Your task to perform on an android device: set default search engine in the chrome app Image 0: 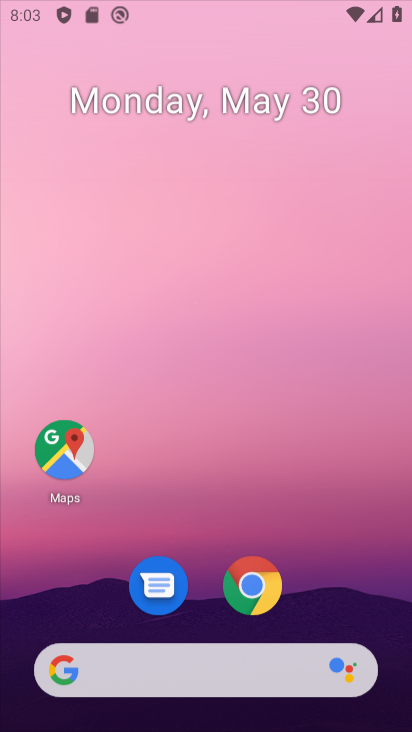
Step 0: click (180, 674)
Your task to perform on an android device: set default search engine in the chrome app Image 1: 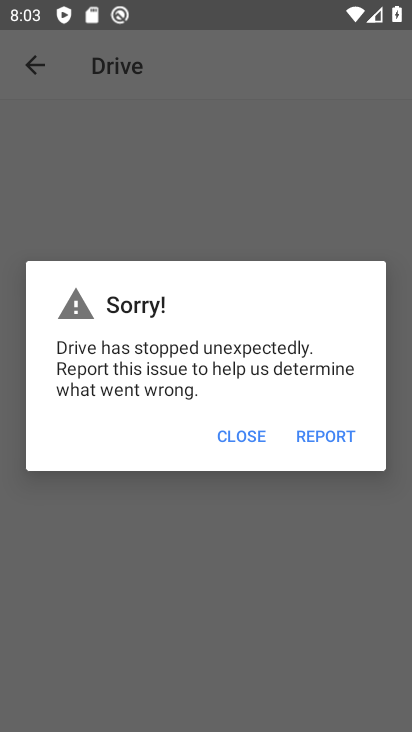
Step 1: press home button
Your task to perform on an android device: set default search engine in the chrome app Image 2: 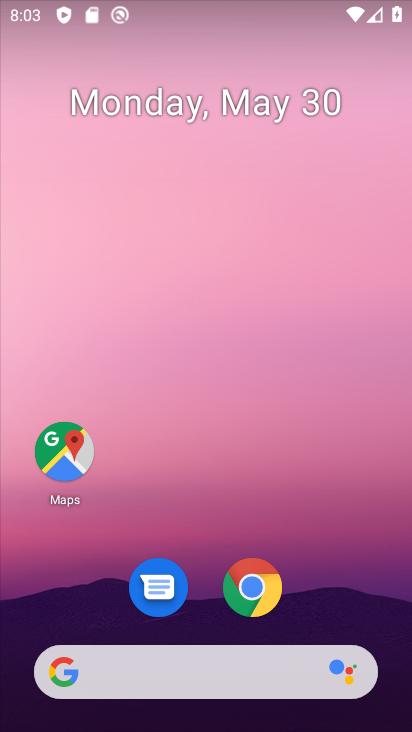
Step 2: click (252, 588)
Your task to perform on an android device: set default search engine in the chrome app Image 3: 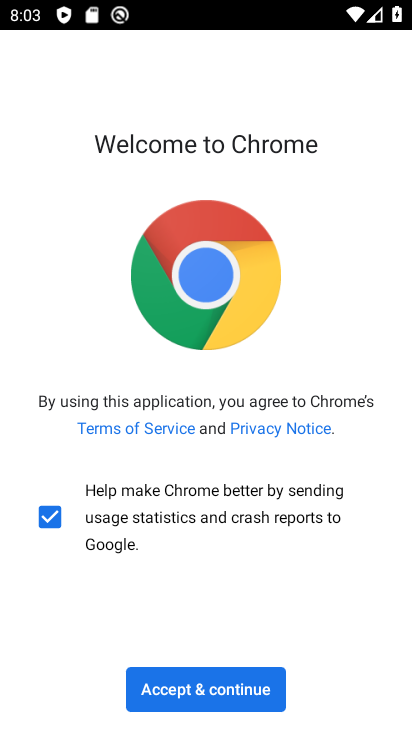
Step 3: click (178, 694)
Your task to perform on an android device: set default search engine in the chrome app Image 4: 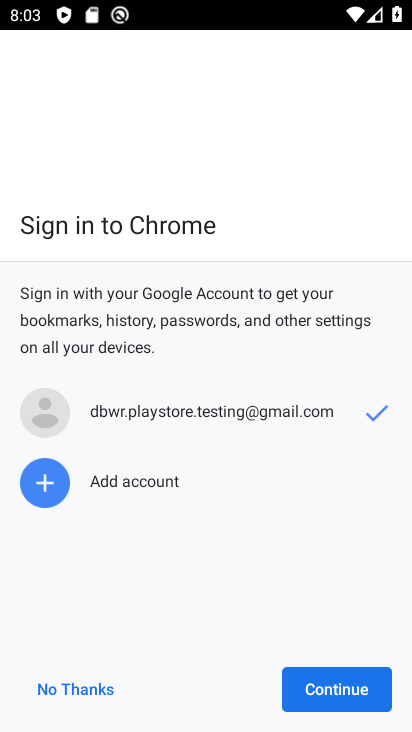
Step 4: click (305, 687)
Your task to perform on an android device: set default search engine in the chrome app Image 5: 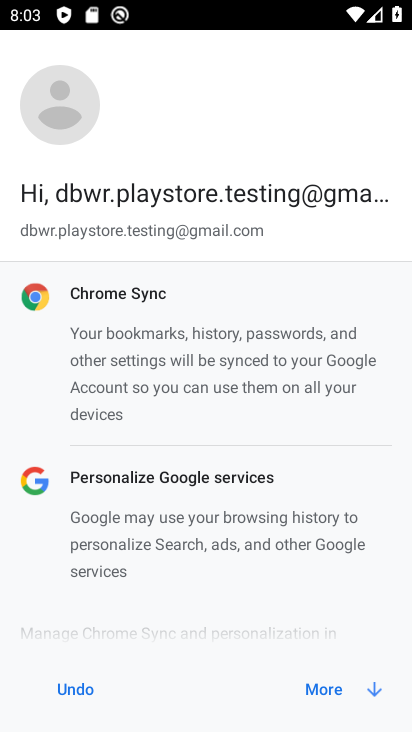
Step 5: click (305, 687)
Your task to perform on an android device: set default search engine in the chrome app Image 6: 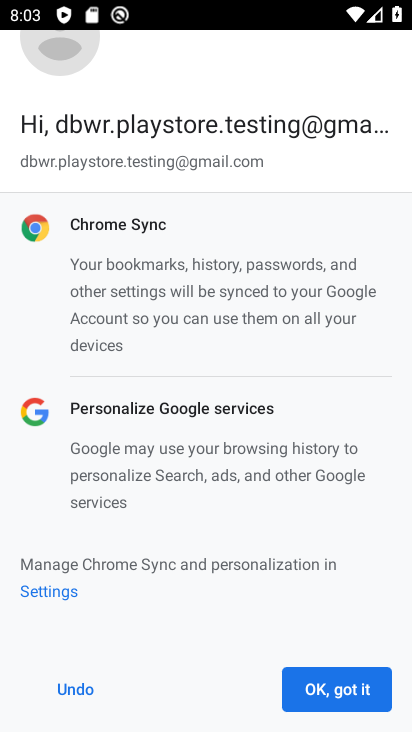
Step 6: click (305, 687)
Your task to perform on an android device: set default search engine in the chrome app Image 7: 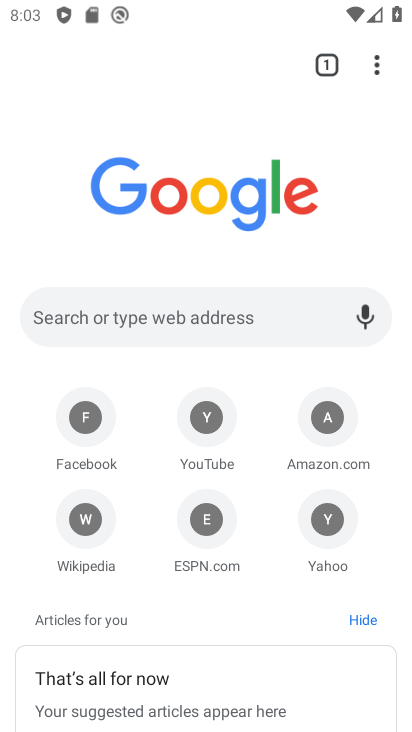
Step 7: click (375, 73)
Your task to perform on an android device: set default search engine in the chrome app Image 8: 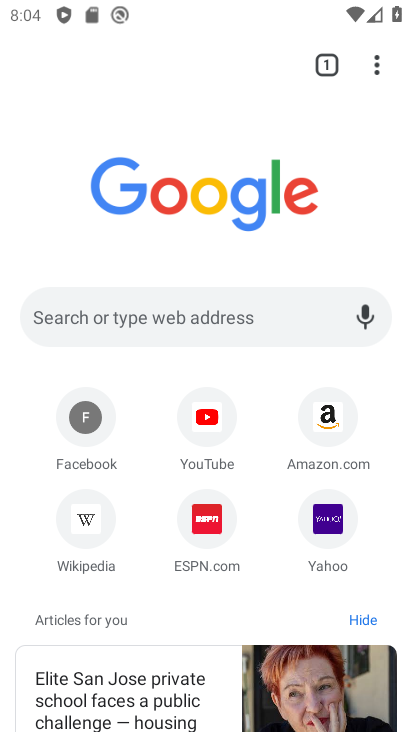
Step 8: click (368, 57)
Your task to perform on an android device: set default search engine in the chrome app Image 9: 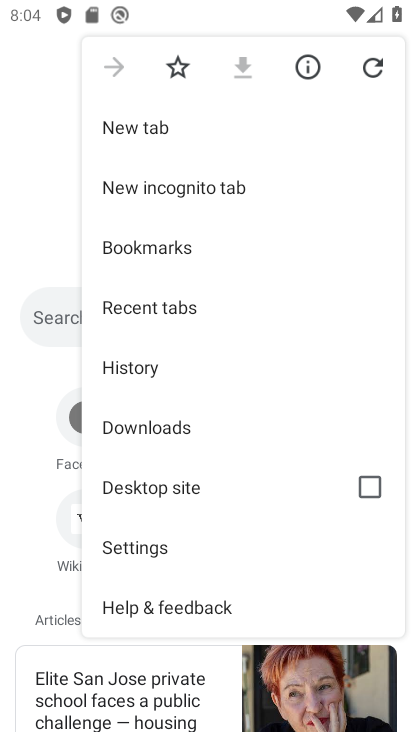
Step 9: click (185, 540)
Your task to perform on an android device: set default search engine in the chrome app Image 10: 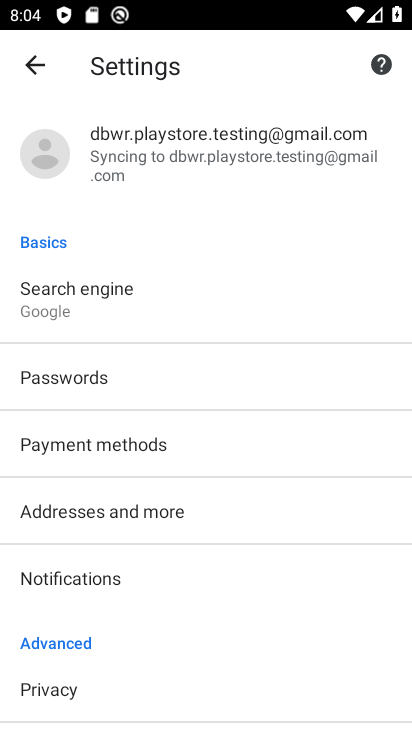
Step 10: click (124, 304)
Your task to perform on an android device: set default search engine in the chrome app Image 11: 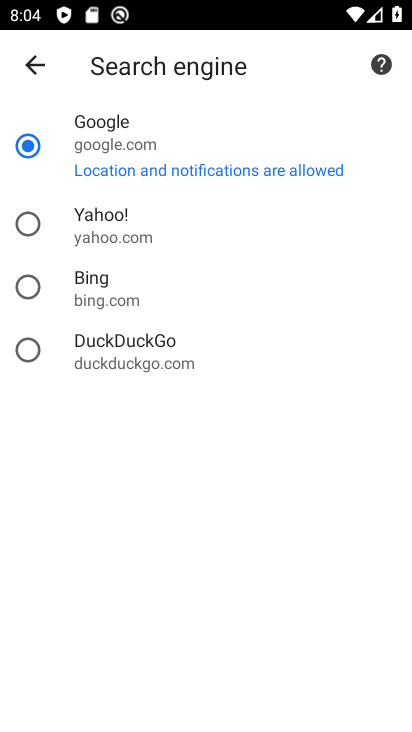
Step 11: task complete